Your task to perform on an android device: Go to network settings Image 0: 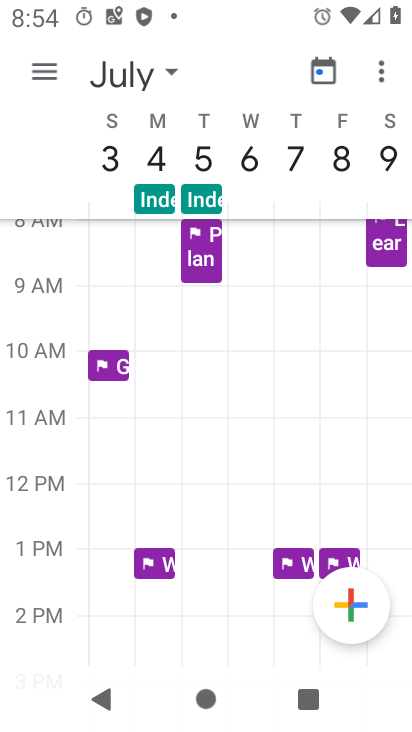
Step 0: press back button
Your task to perform on an android device: Go to network settings Image 1: 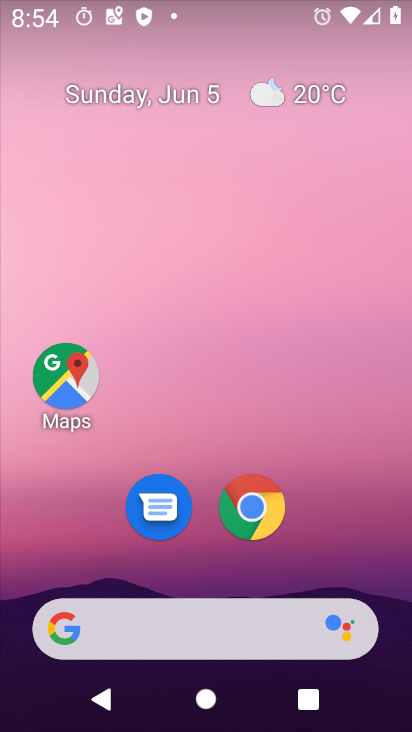
Step 1: drag from (355, 526) to (254, 14)
Your task to perform on an android device: Go to network settings Image 2: 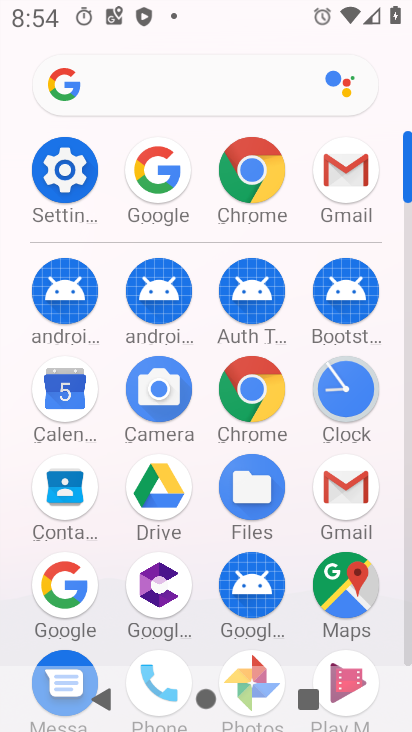
Step 2: drag from (8, 537) to (2, 238)
Your task to perform on an android device: Go to network settings Image 3: 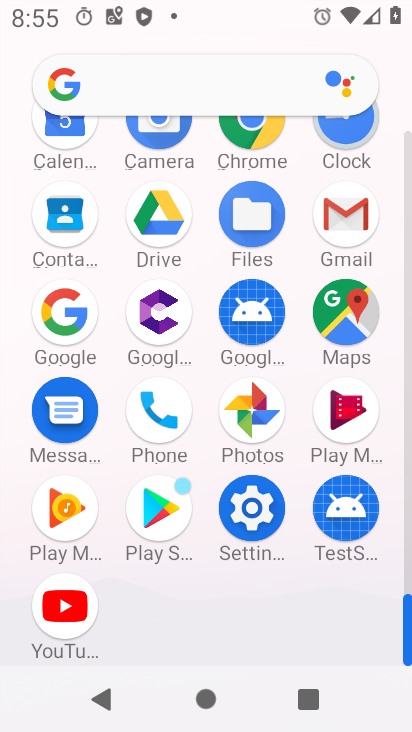
Step 3: click (251, 507)
Your task to perform on an android device: Go to network settings Image 4: 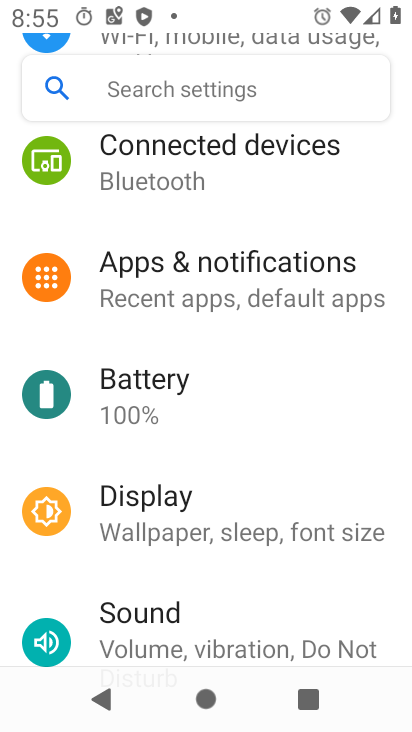
Step 4: drag from (245, 188) to (285, 571)
Your task to perform on an android device: Go to network settings Image 5: 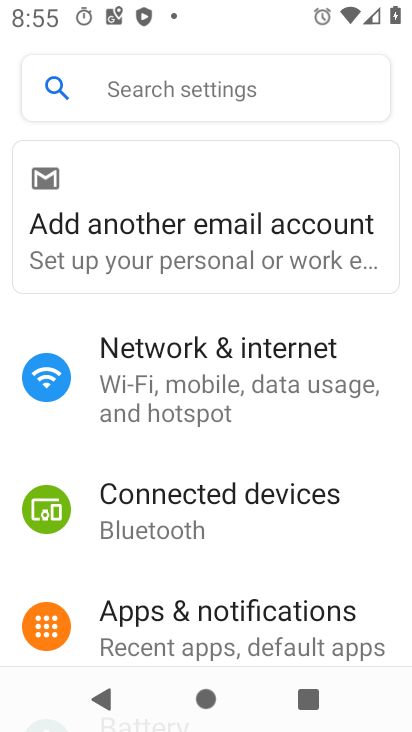
Step 5: click (255, 403)
Your task to perform on an android device: Go to network settings Image 6: 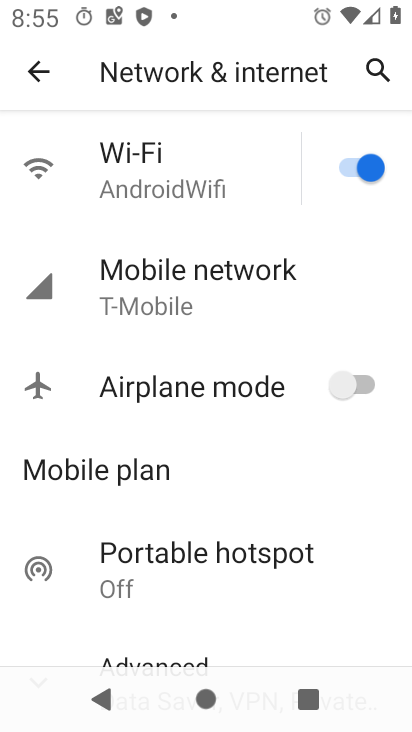
Step 6: drag from (245, 574) to (245, 187)
Your task to perform on an android device: Go to network settings Image 7: 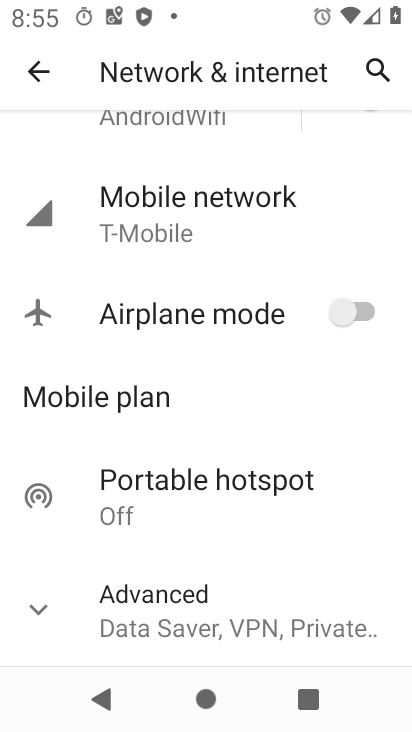
Step 7: click (56, 606)
Your task to perform on an android device: Go to network settings Image 8: 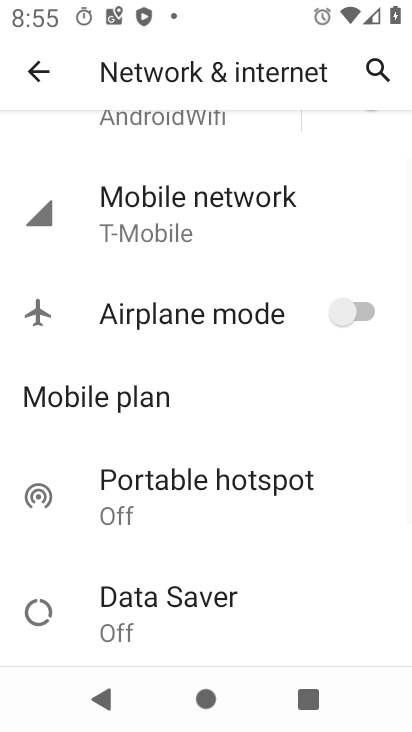
Step 8: task complete